Your task to perform on an android device: turn on improve location accuracy Image 0: 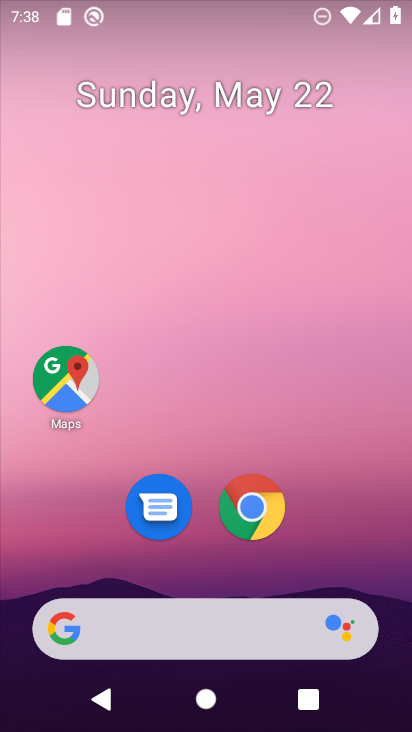
Step 0: drag from (159, 594) to (121, 16)
Your task to perform on an android device: turn on improve location accuracy Image 1: 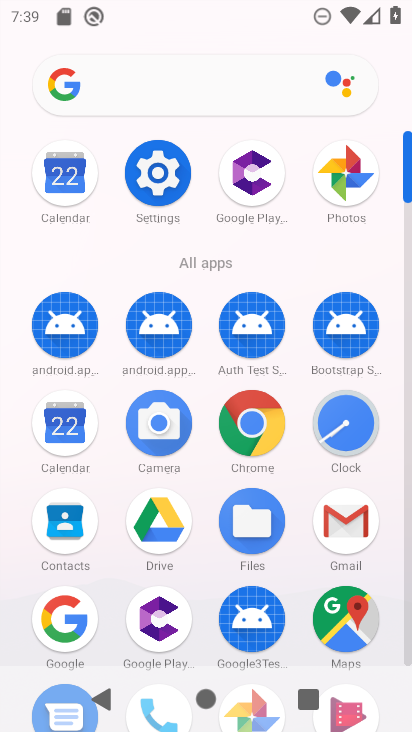
Step 1: click (158, 180)
Your task to perform on an android device: turn on improve location accuracy Image 2: 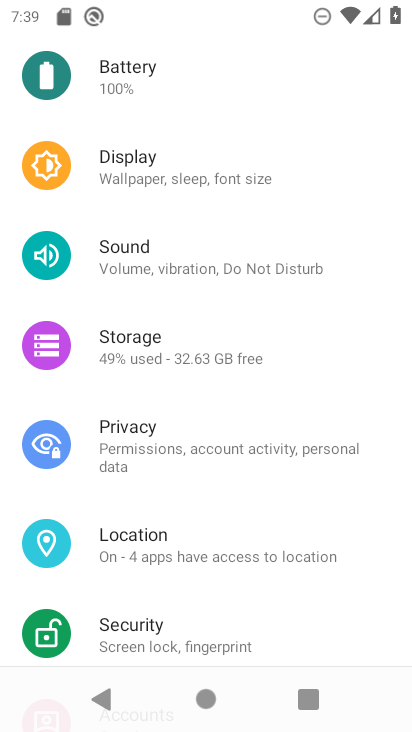
Step 2: click (218, 550)
Your task to perform on an android device: turn on improve location accuracy Image 3: 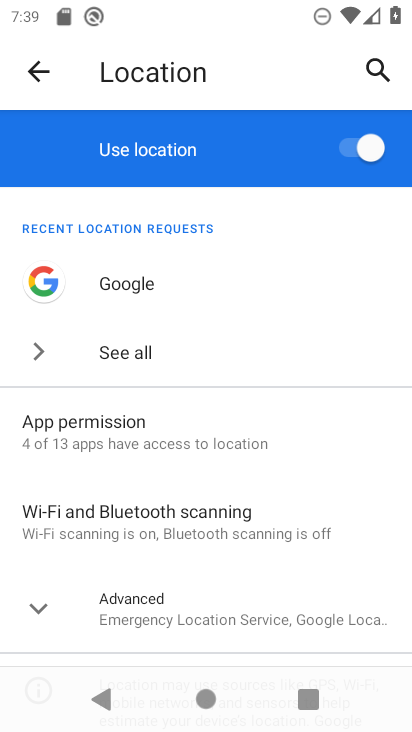
Step 3: click (228, 622)
Your task to perform on an android device: turn on improve location accuracy Image 4: 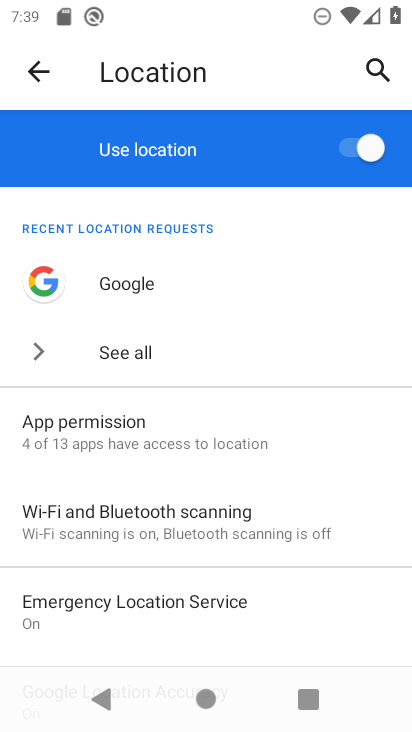
Step 4: drag from (288, 641) to (136, 71)
Your task to perform on an android device: turn on improve location accuracy Image 5: 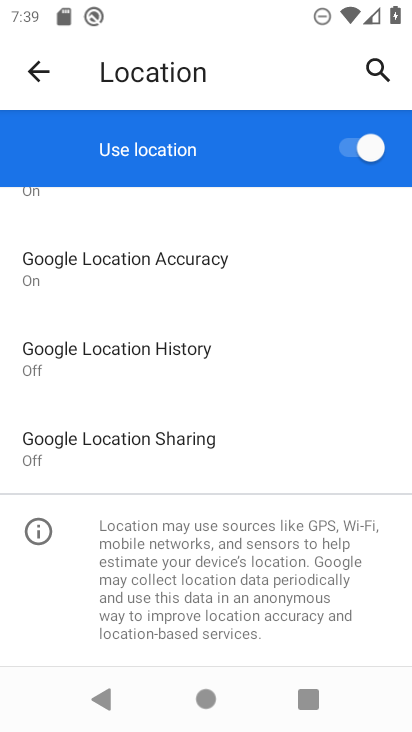
Step 5: click (128, 261)
Your task to perform on an android device: turn on improve location accuracy Image 6: 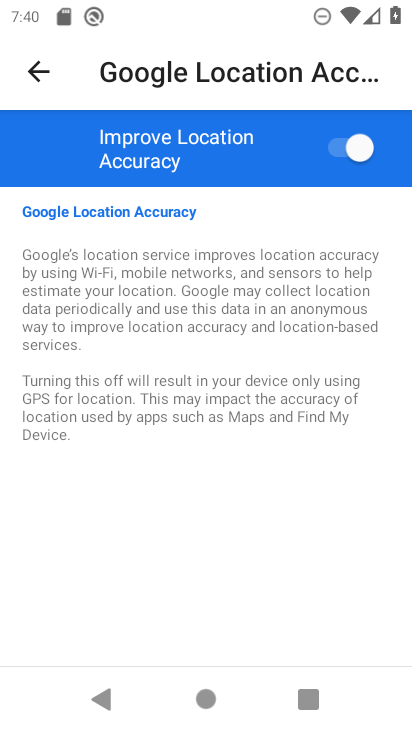
Step 6: task complete